Your task to perform on an android device: Search for seafood restaurants on Google Maps Image 0: 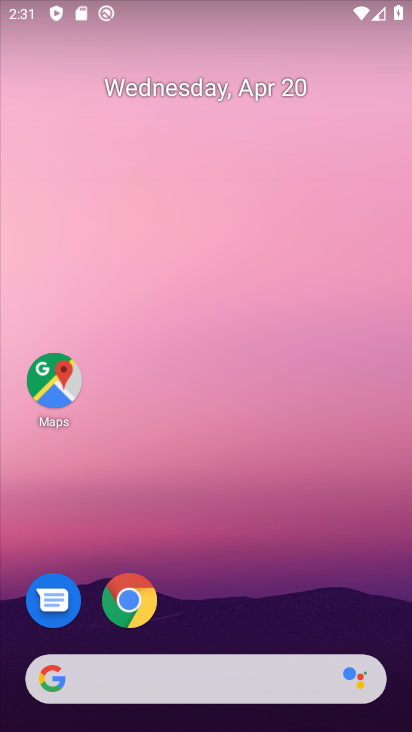
Step 0: drag from (256, 603) to (270, 121)
Your task to perform on an android device: Search for seafood restaurants on Google Maps Image 1: 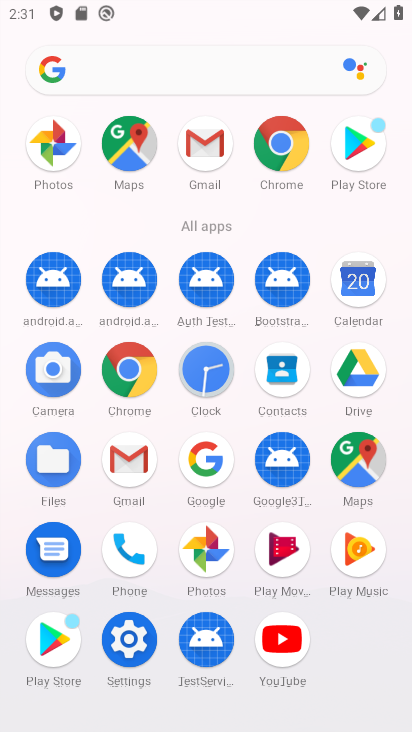
Step 1: click (129, 169)
Your task to perform on an android device: Search for seafood restaurants on Google Maps Image 2: 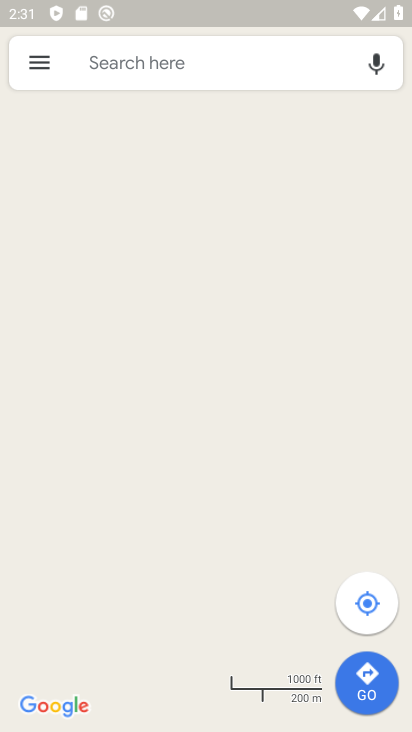
Step 2: click (186, 51)
Your task to perform on an android device: Search for seafood restaurants on Google Maps Image 3: 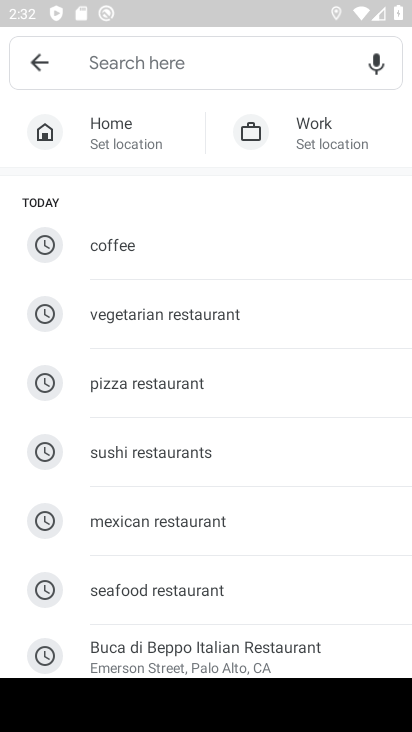
Step 3: type "seafoof resturents"
Your task to perform on an android device: Search for seafood restaurants on Google Maps Image 4: 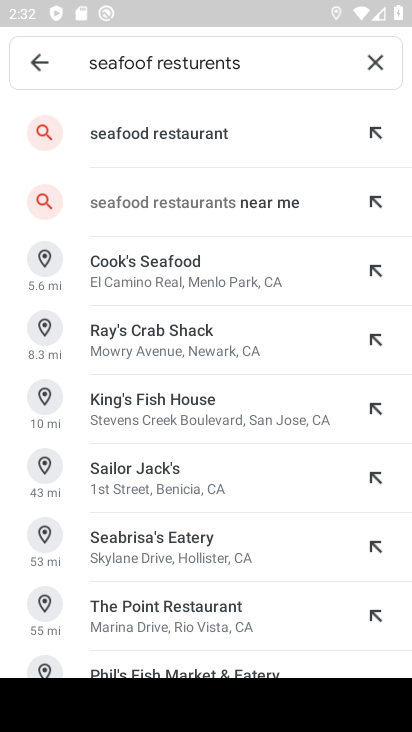
Step 4: click (114, 137)
Your task to perform on an android device: Search for seafood restaurants on Google Maps Image 5: 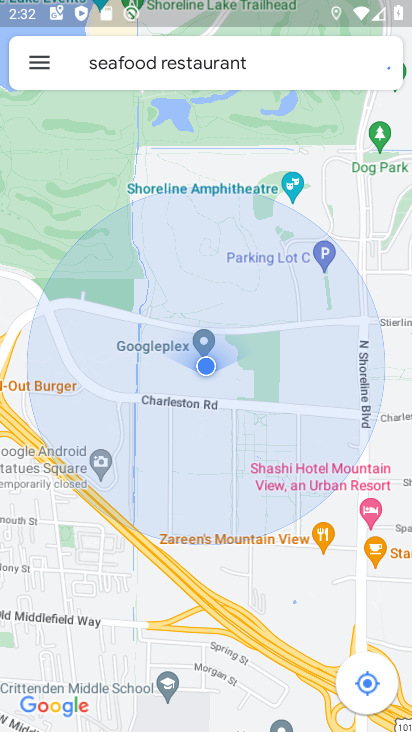
Step 5: task complete